Your task to perform on an android device: read, delete, or share a saved page in the chrome app Image 0: 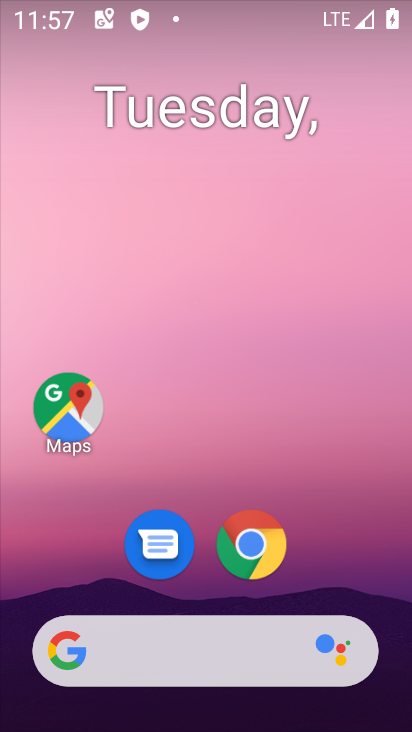
Step 0: drag from (408, 660) to (255, 14)
Your task to perform on an android device: read, delete, or share a saved page in the chrome app Image 1: 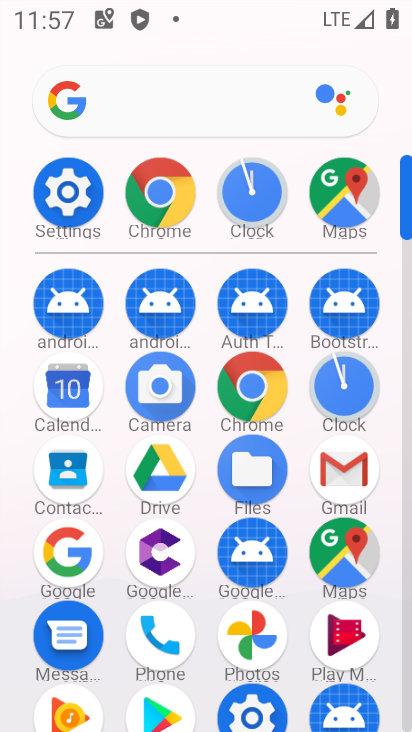
Step 1: click (244, 404)
Your task to perform on an android device: read, delete, or share a saved page in the chrome app Image 2: 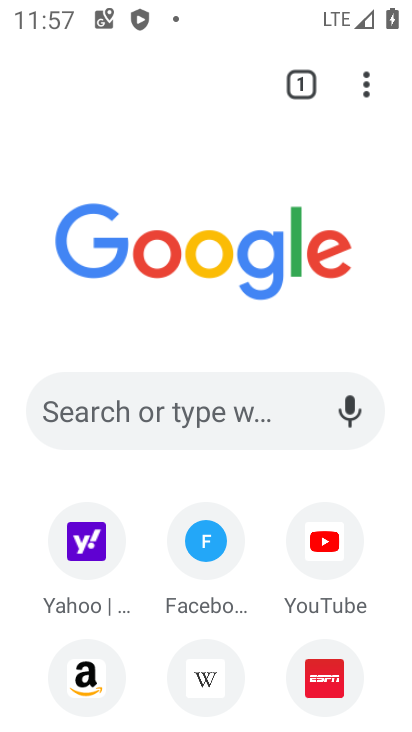
Step 2: task complete